Your task to perform on an android device: toggle wifi Image 0: 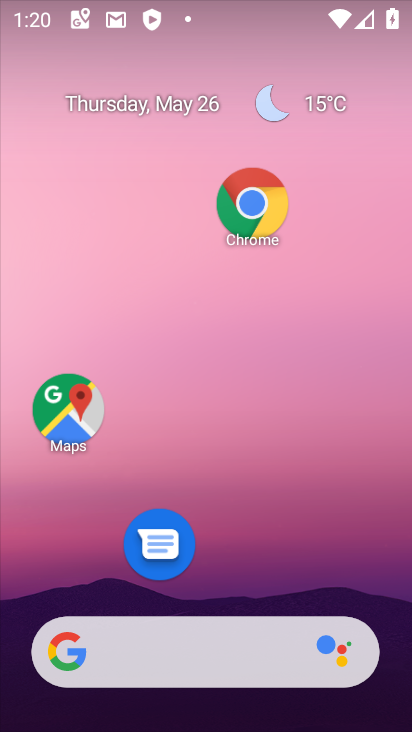
Step 0: drag from (145, 708) to (225, 122)
Your task to perform on an android device: toggle wifi Image 1: 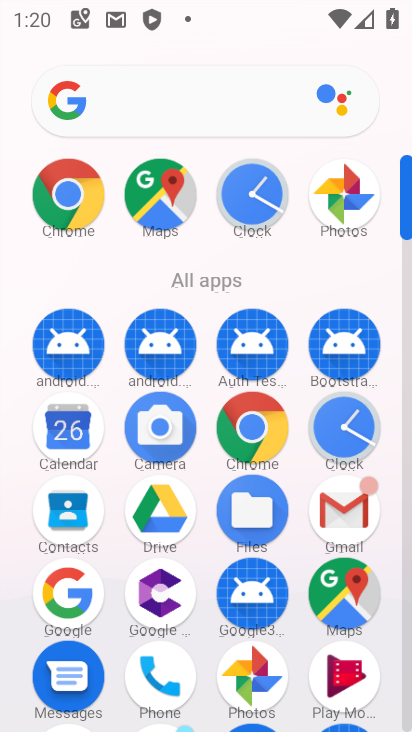
Step 1: drag from (264, 489) to (317, 54)
Your task to perform on an android device: toggle wifi Image 2: 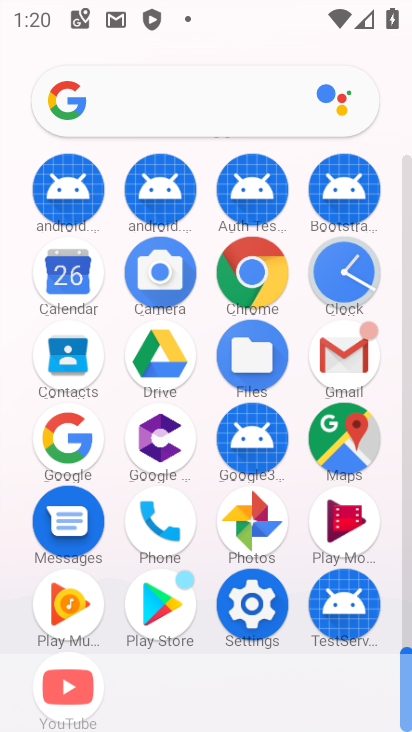
Step 2: click (255, 612)
Your task to perform on an android device: toggle wifi Image 3: 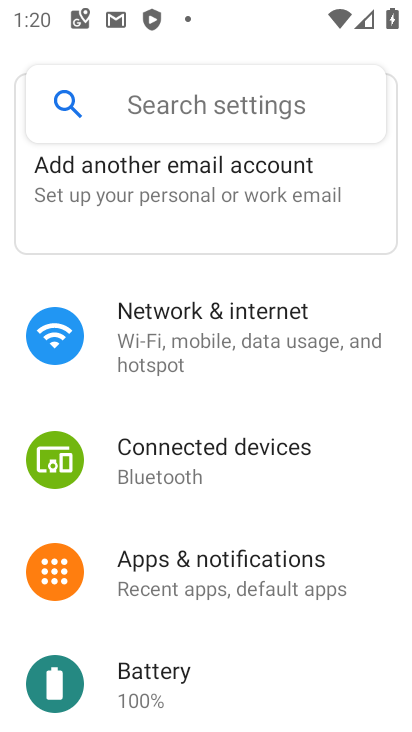
Step 3: click (244, 353)
Your task to perform on an android device: toggle wifi Image 4: 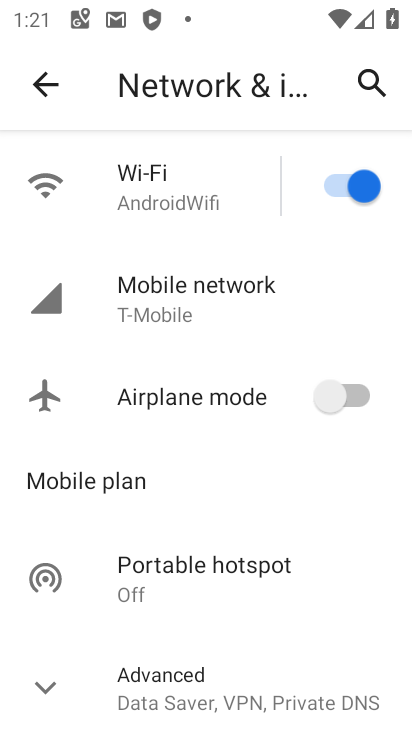
Step 4: click (367, 185)
Your task to perform on an android device: toggle wifi Image 5: 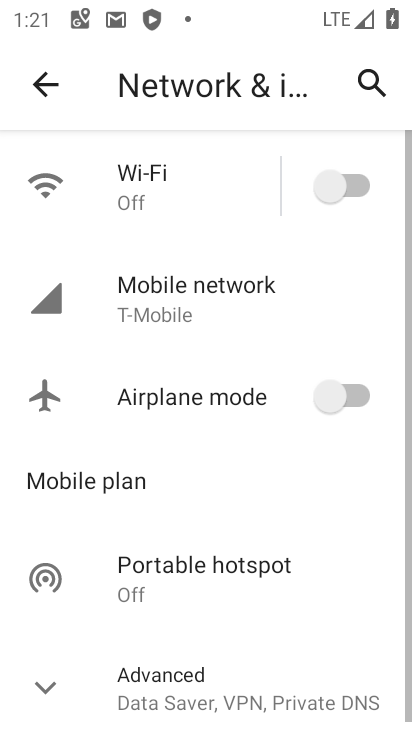
Step 5: task complete